Your task to perform on an android device: turn on the 12-hour format for clock Image 0: 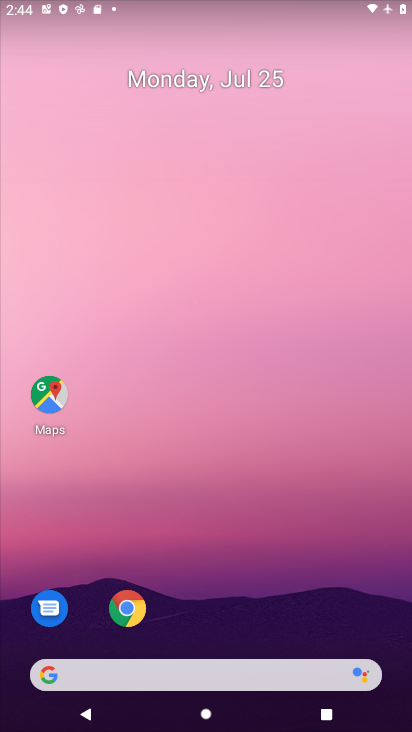
Step 0: drag from (210, 647) to (236, 324)
Your task to perform on an android device: turn on the 12-hour format for clock Image 1: 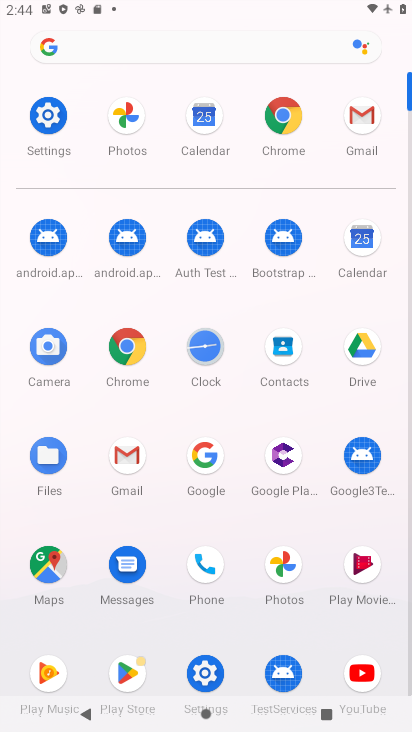
Step 1: click (209, 355)
Your task to perform on an android device: turn on the 12-hour format for clock Image 2: 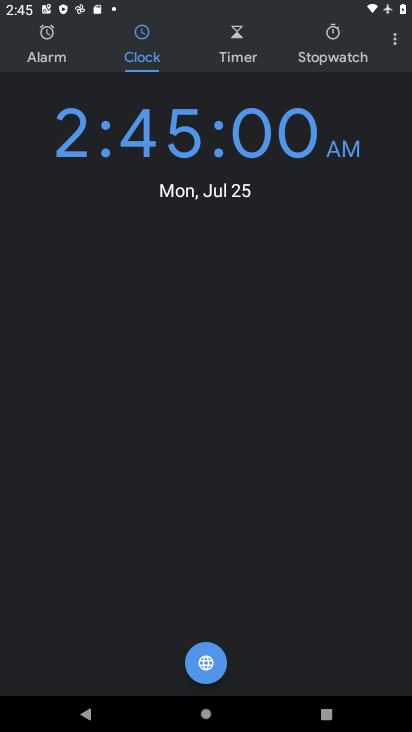
Step 2: click (390, 41)
Your task to perform on an android device: turn on the 12-hour format for clock Image 3: 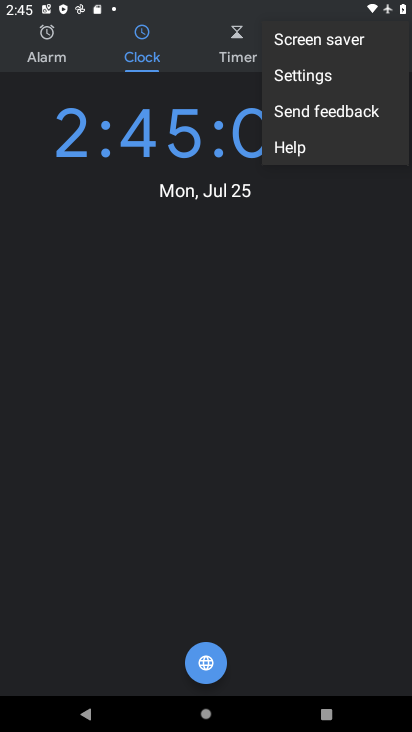
Step 3: click (327, 84)
Your task to perform on an android device: turn on the 12-hour format for clock Image 4: 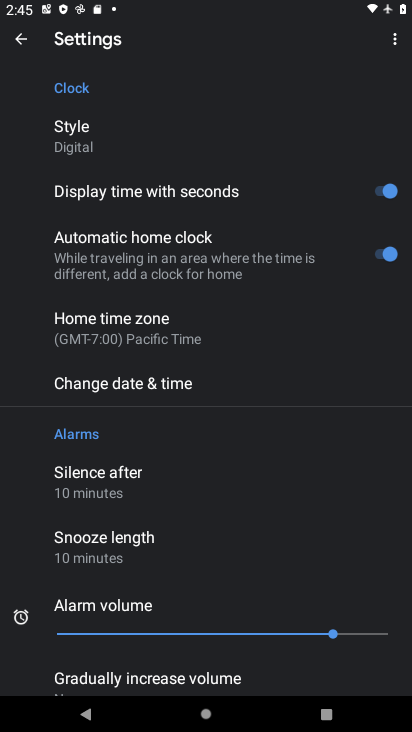
Step 4: click (185, 383)
Your task to perform on an android device: turn on the 12-hour format for clock Image 5: 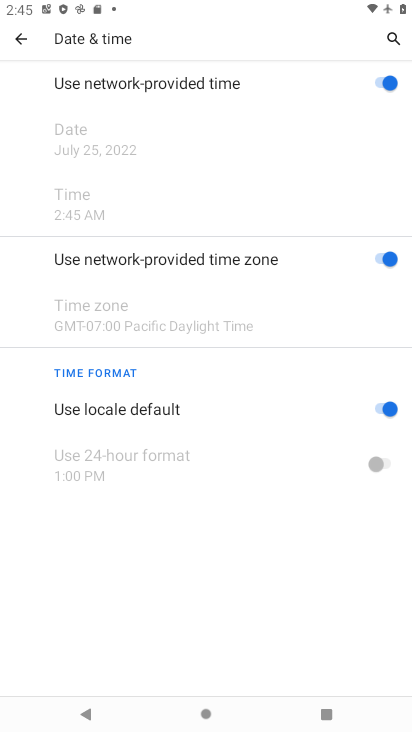
Step 5: task complete